Your task to perform on an android device: uninstall "Life360: Find Family & Friends" Image 0: 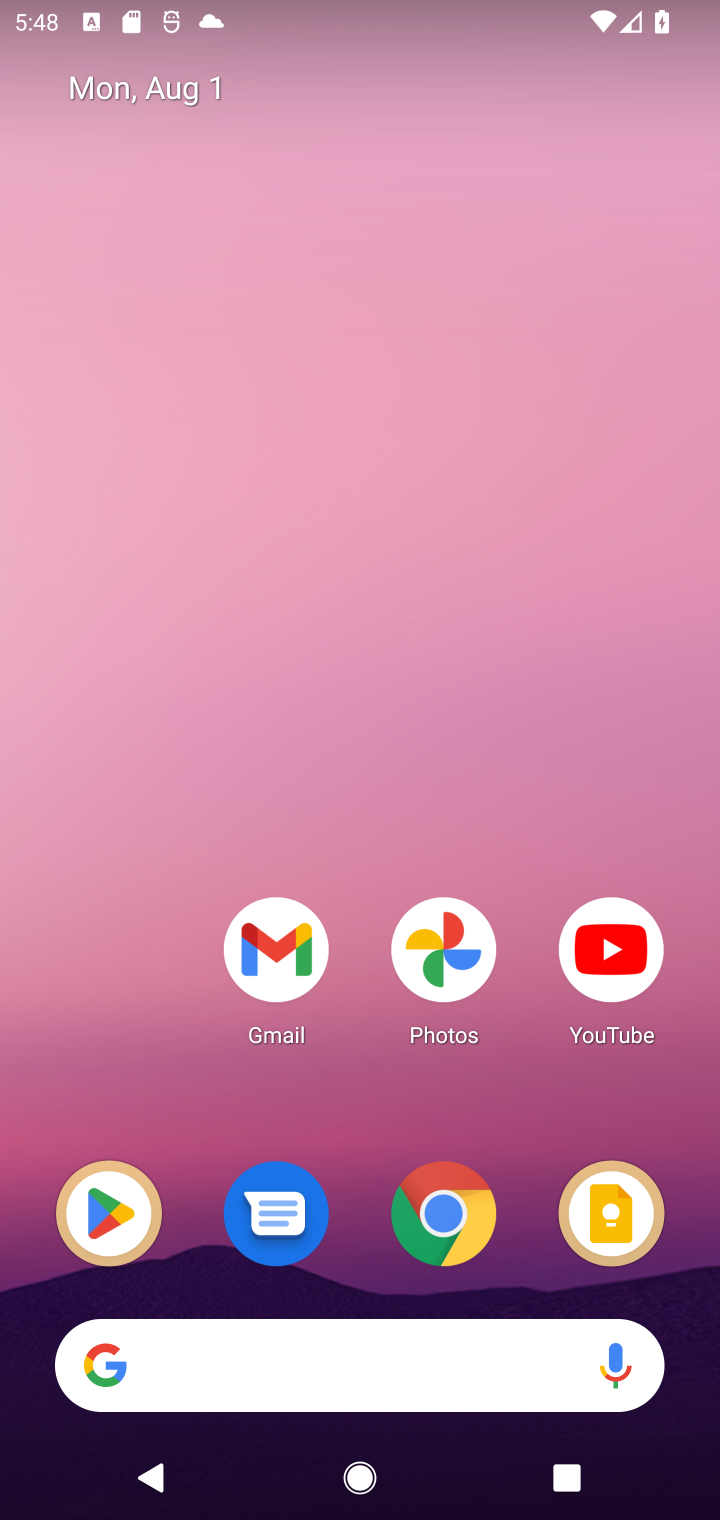
Step 0: drag from (553, 1153) to (584, 106)
Your task to perform on an android device: uninstall "Life360: Find Family & Friends" Image 1: 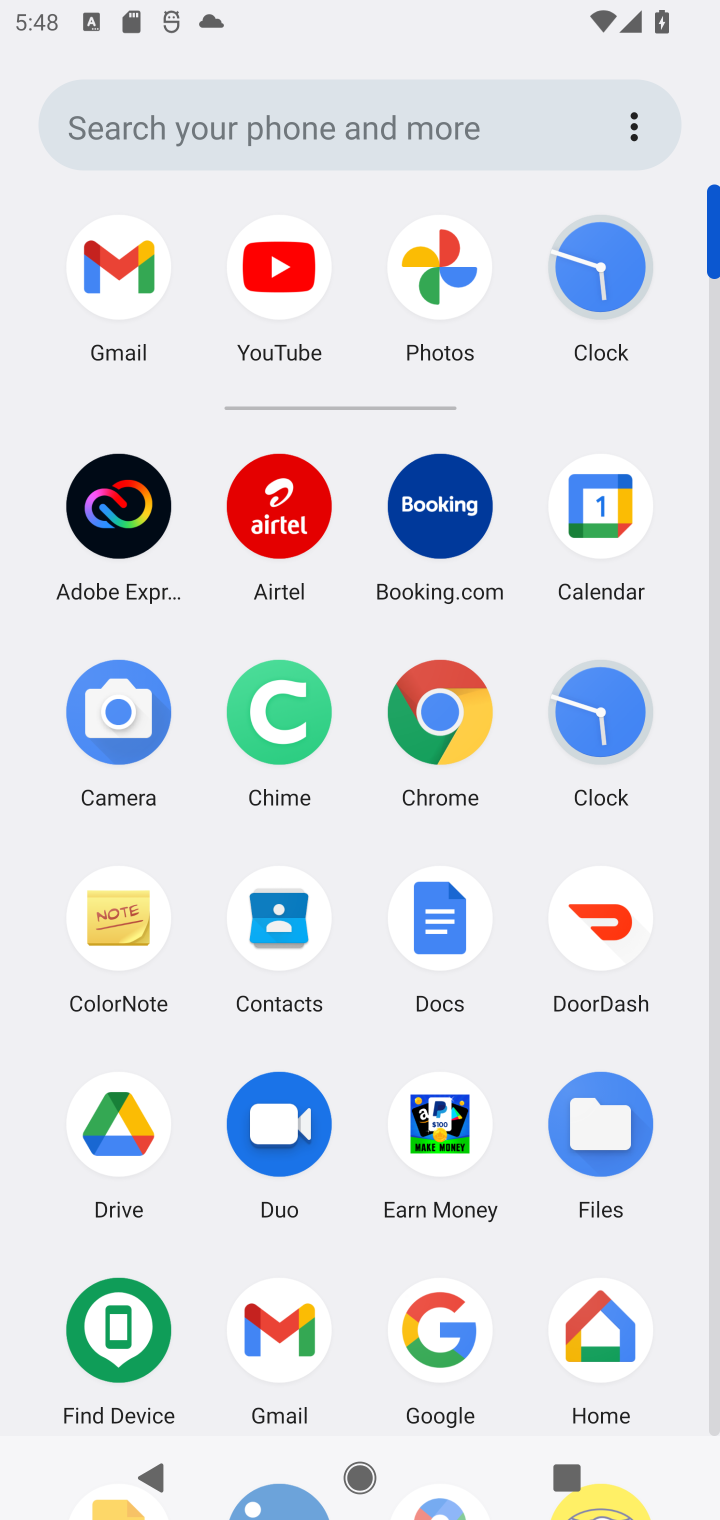
Step 1: drag from (515, 1273) to (609, 439)
Your task to perform on an android device: uninstall "Life360: Find Family & Friends" Image 2: 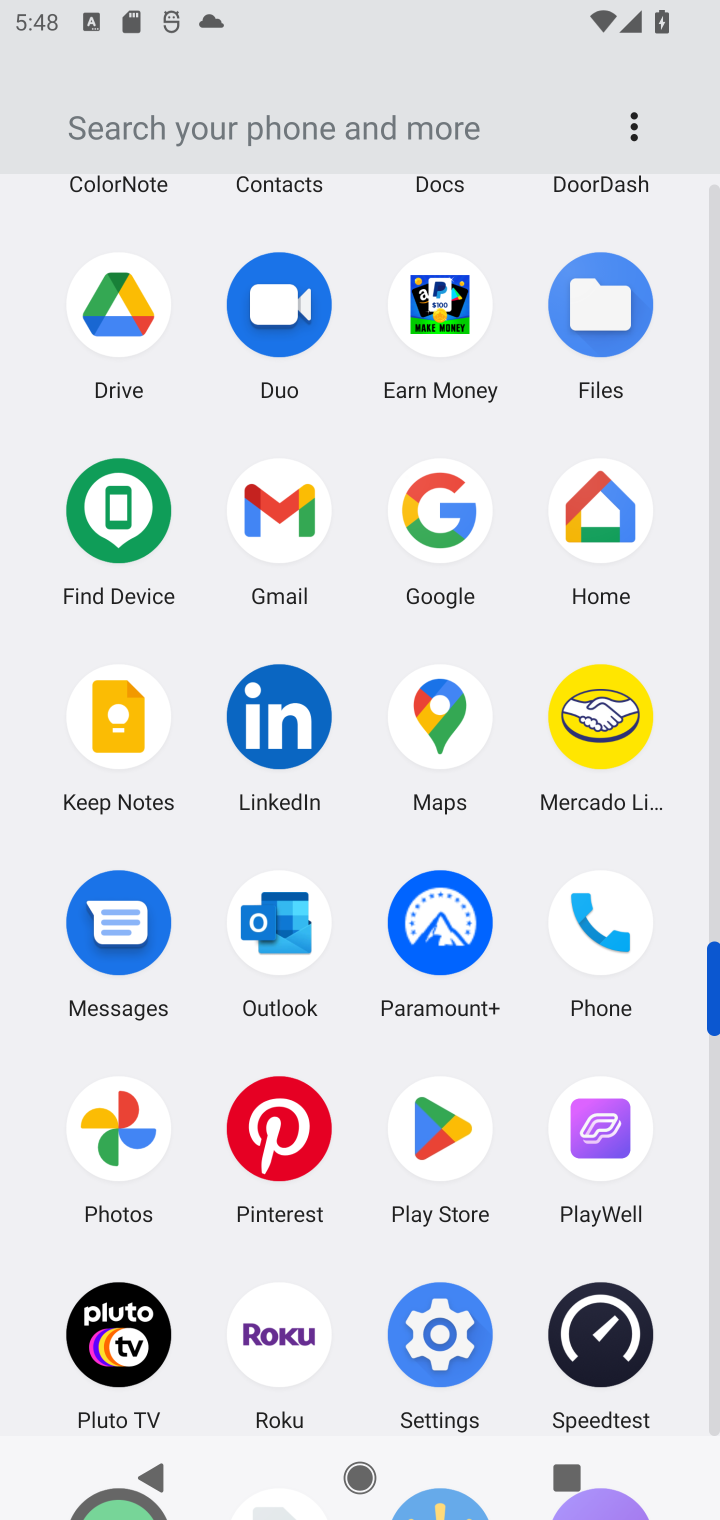
Step 2: click (455, 1123)
Your task to perform on an android device: uninstall "Life360: Find Family & Friends" Image 3: 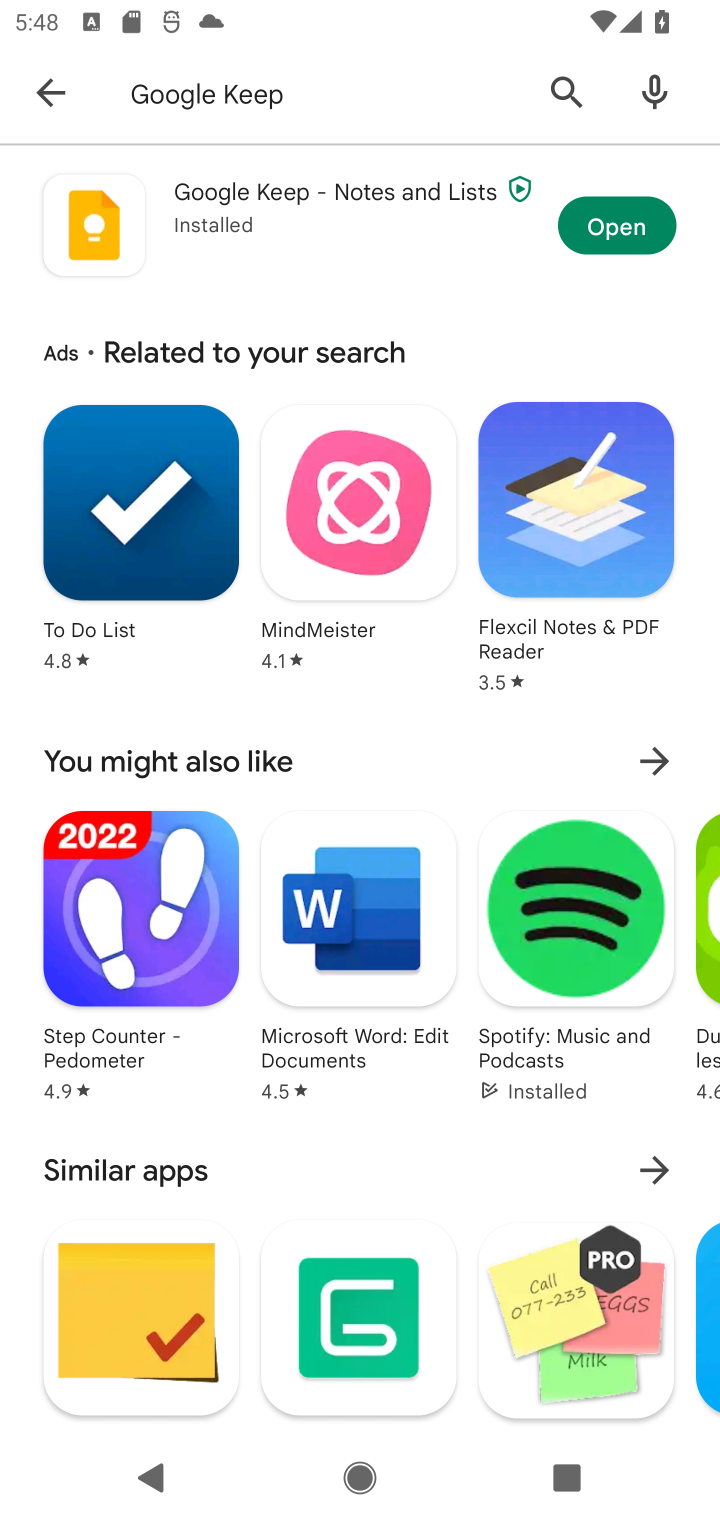
Step 3: click (307, 95)
Your task to perform on an android device: uninstall "Life360: Find Family & Friends" Image 4: 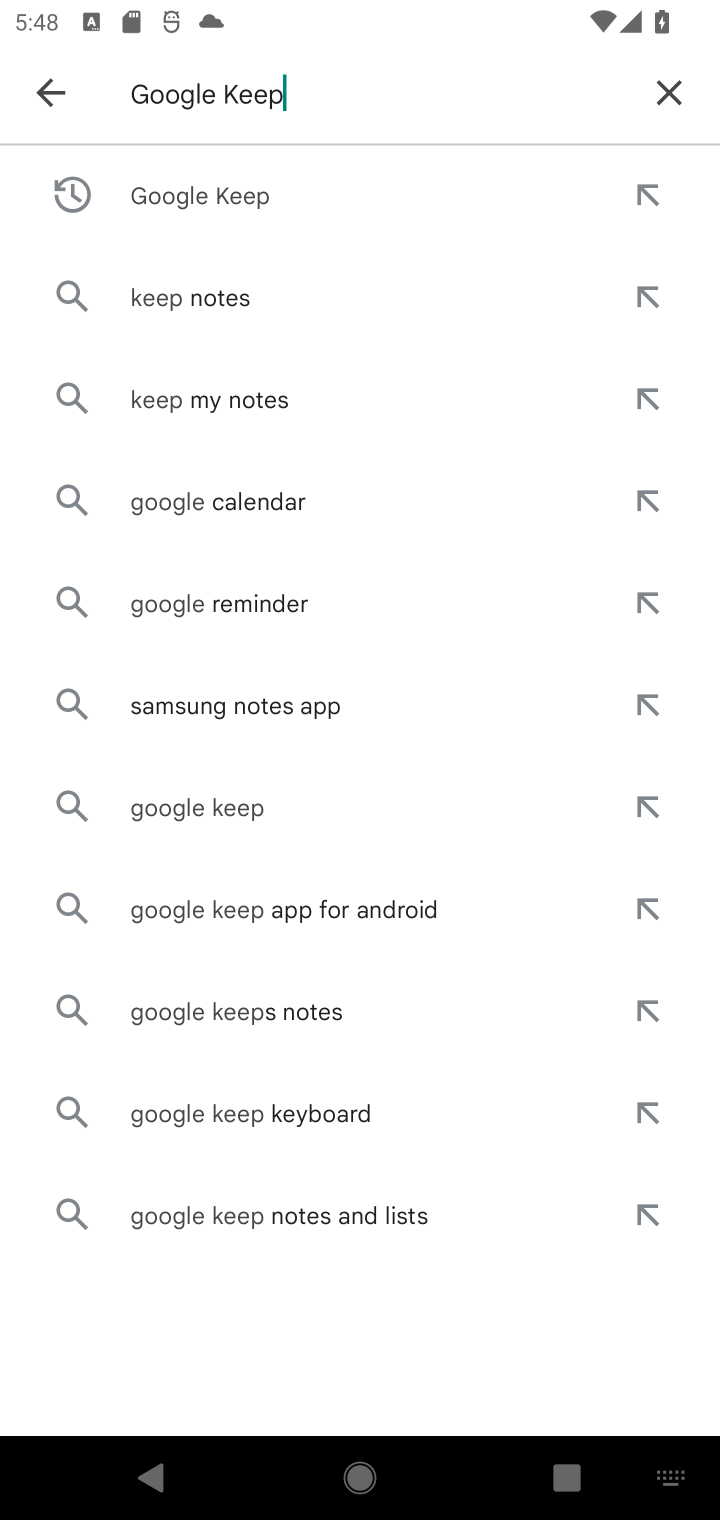
Step 4: click (671, 98)
Your task to perform on an android device: uninstall "Life360: Find Family & Friends" Image 5: 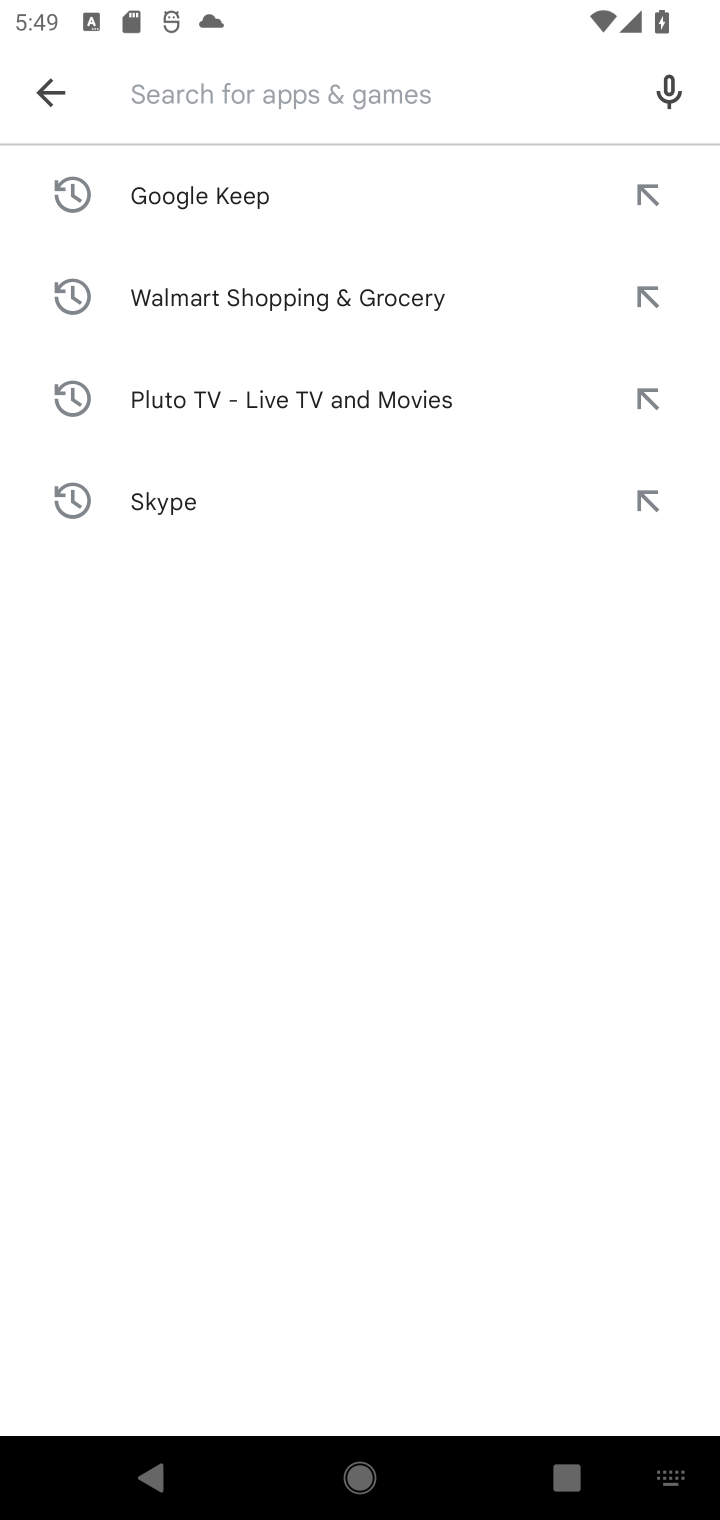
Step 5: type "Life360: Find Family & Frieds"
Your task to perform on an android device: uninstall "Life360: Find Family & Friends" Image 6: 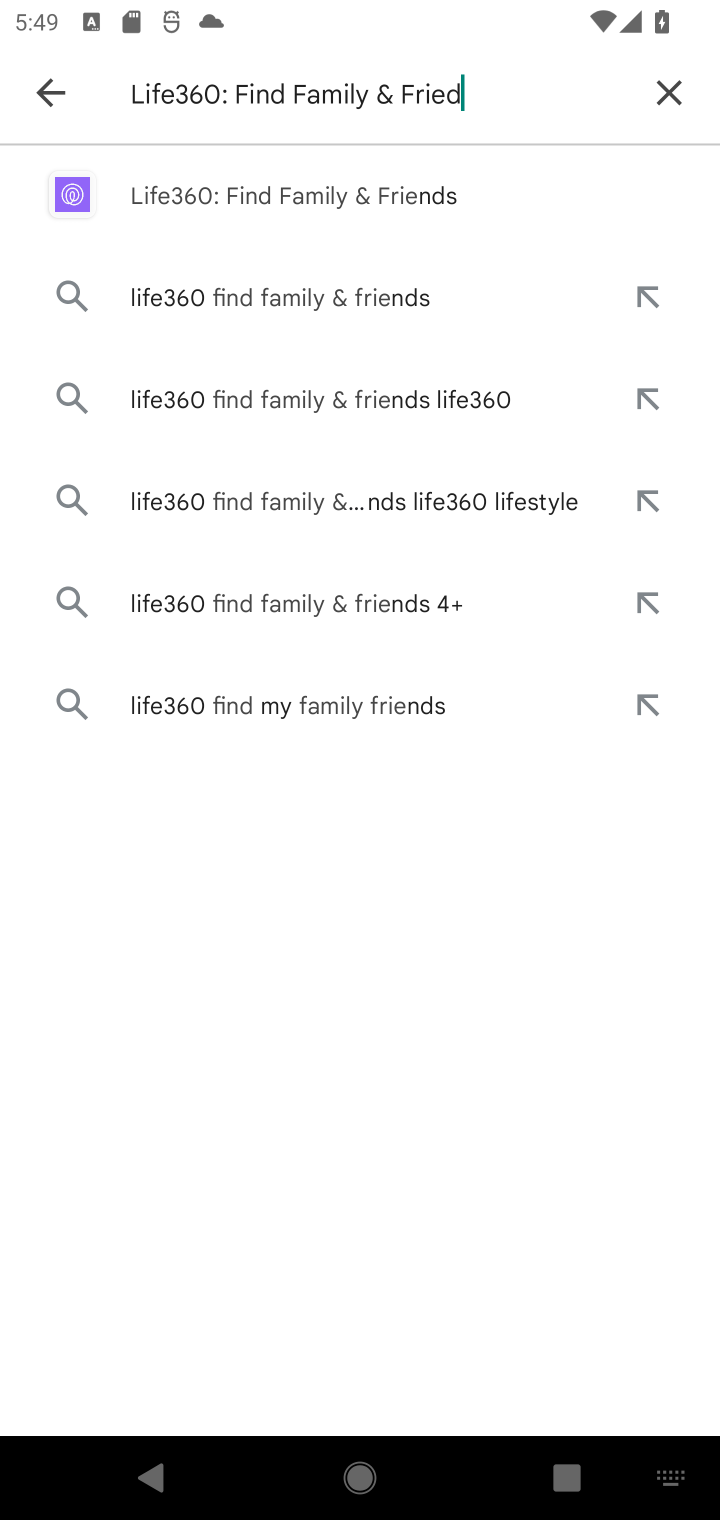
Step 6: press enter
Your task to perform on an android device: uninstall "Life360: Find Family & Friends" Image 7: 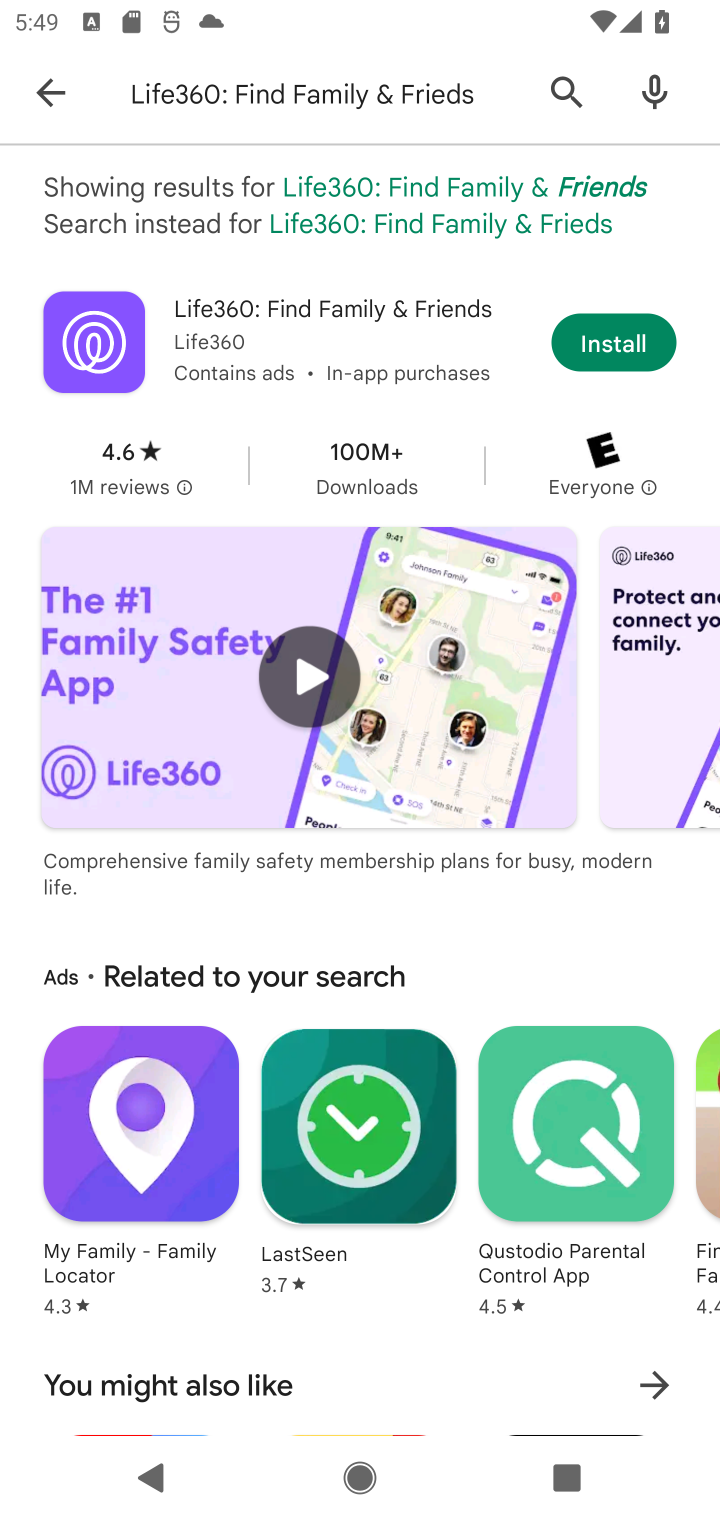
Step 7: click (315, 345)
Your task to perform on an android device: uninstall "Life360: Find Family & Friends" Image 8: 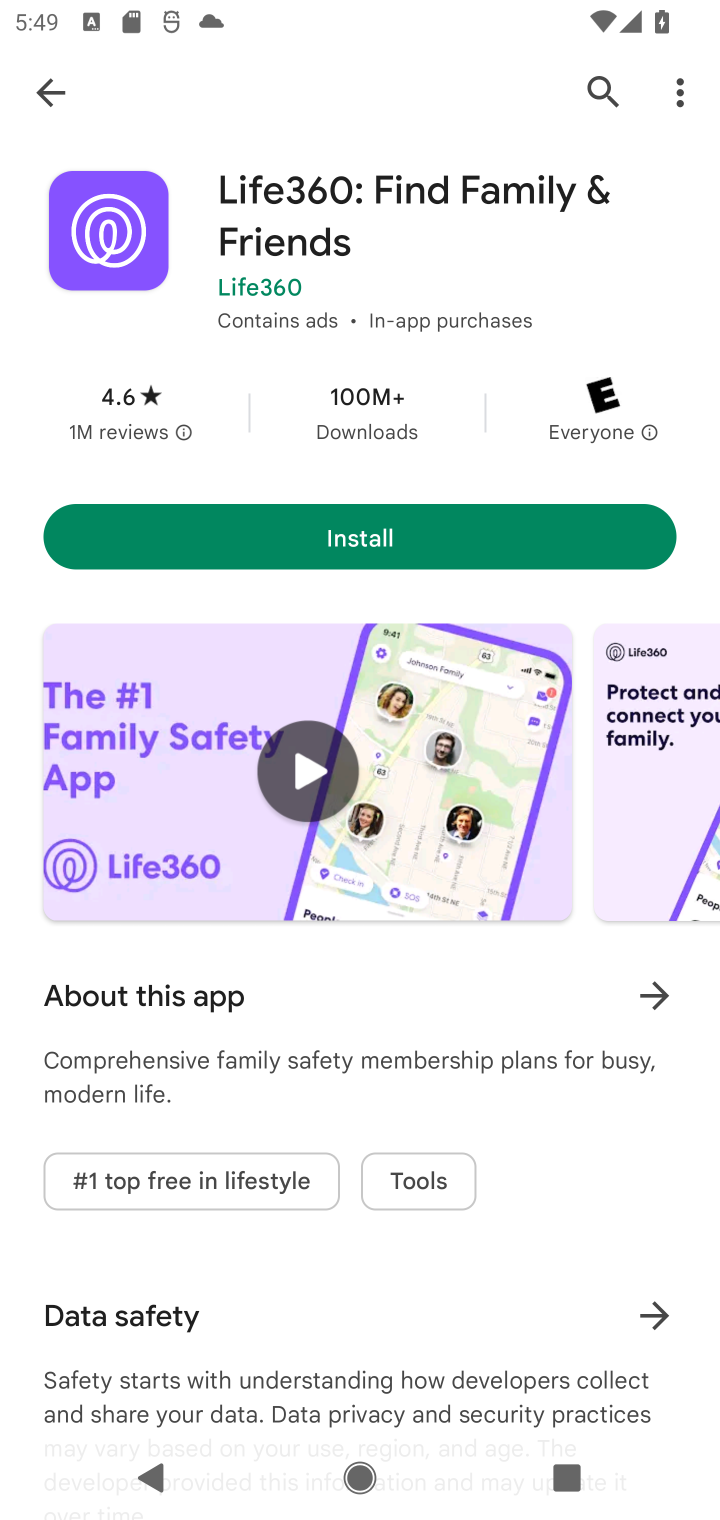
Step 8: task complete